Your task to perform on an android device: See recent photos Image 0: 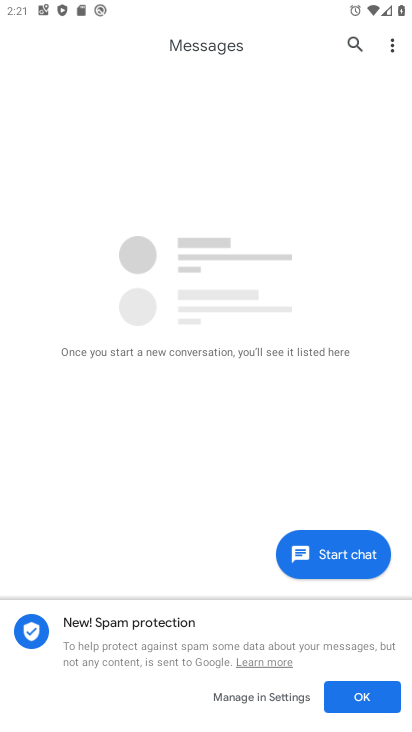
Step 0: press home button
Your task to perform on an android device: See recent photos Image 1: 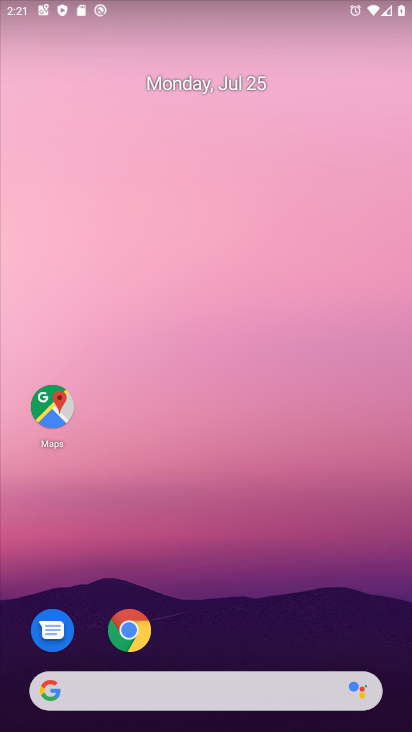
Step 1: drag from (252, 647) to (244, 283)
Your task to perform on an android device: See recent photos Image 2: 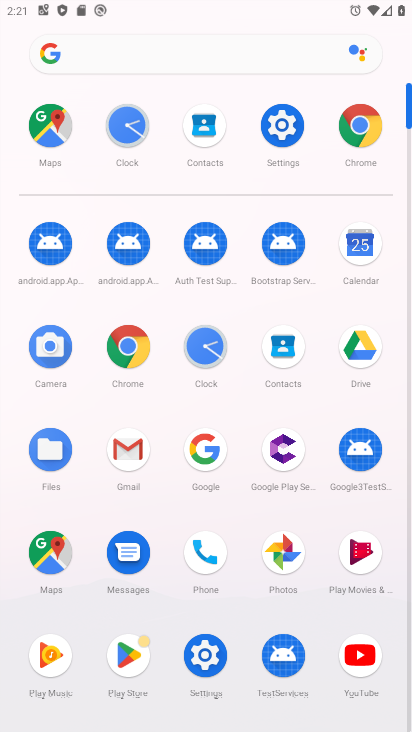
Step 2: click (287, 552)
Your task to perform on an android device: See recent photos Image 3: 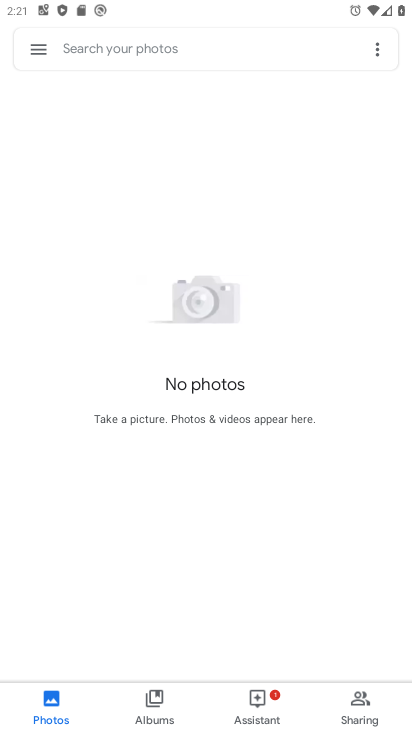
Step 3: task complete